Your task to perform on an android device: Open the phone app and click the voicemail tab. Image 0: 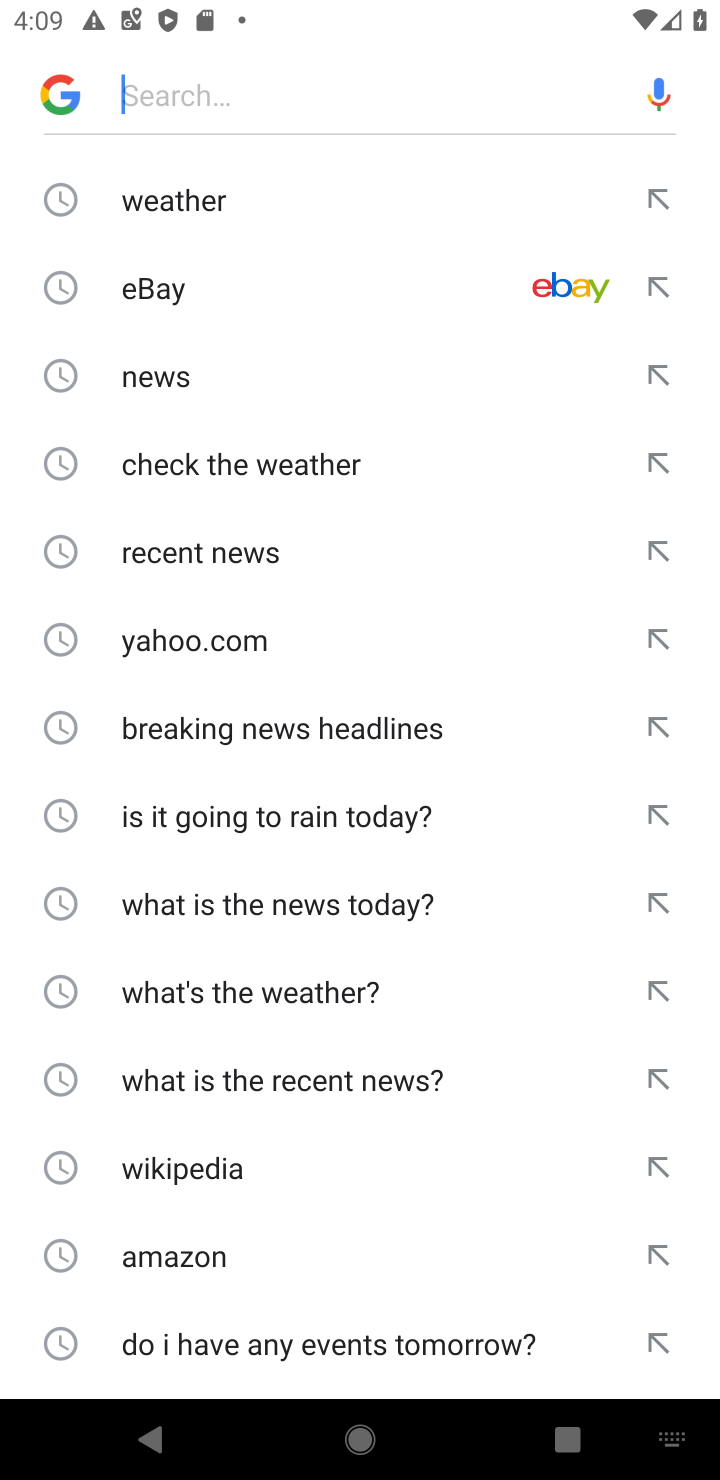
Step 0: press home button
Your task to perform on an android device: Open the phone app and click the voicemail tab. Image 1: 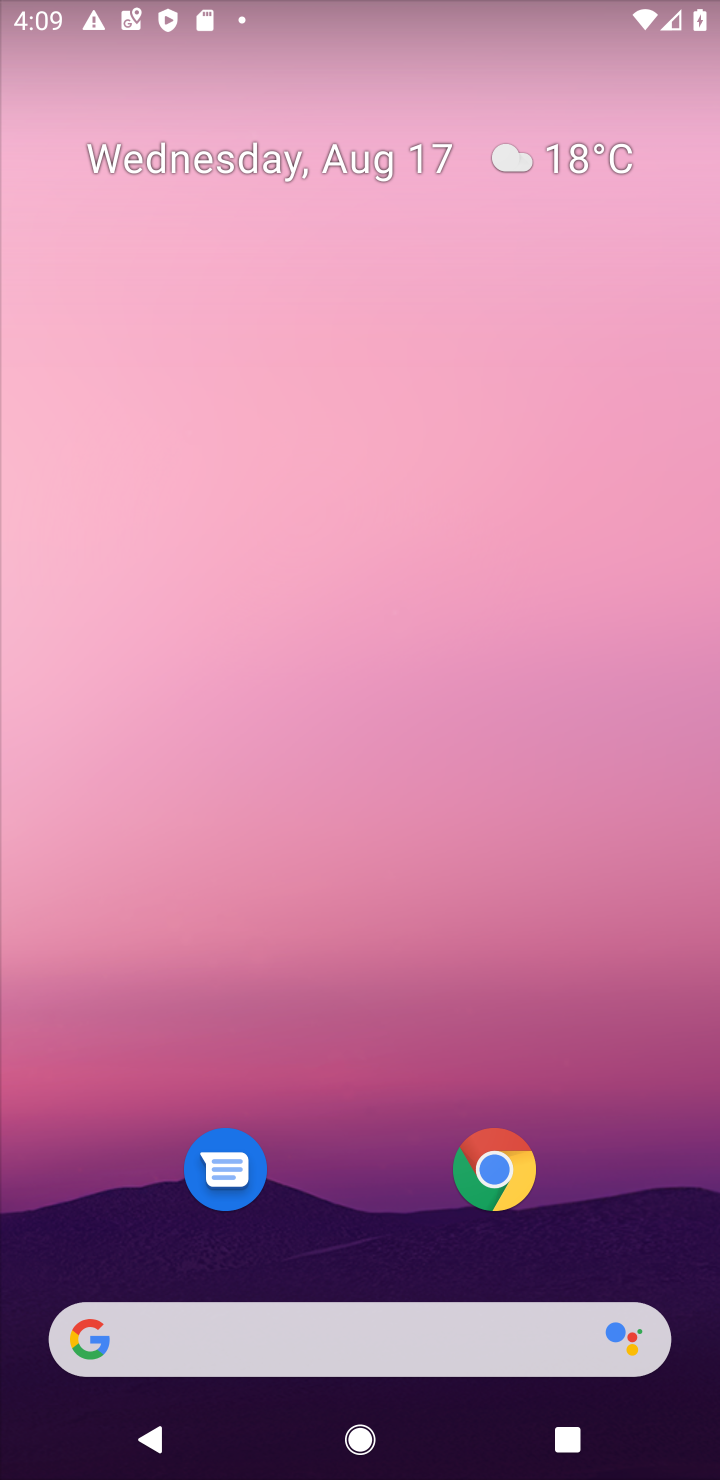
Step 1: drag from (375, 1153) to (405, 172)
Your task to perform on an android device: Open the phone app and click the voicemail tab. Image 2: 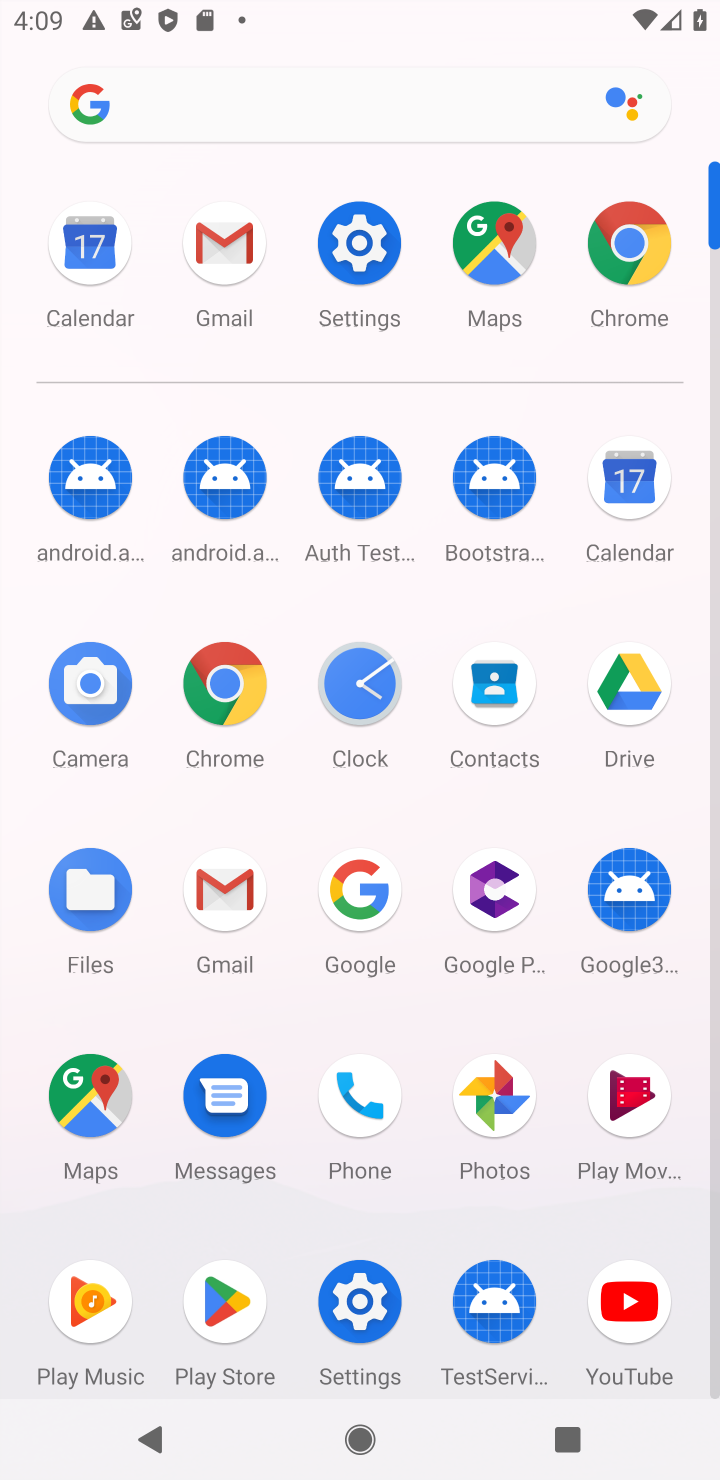
Step 2: click (360, 1092)
Your task to perform on an android device: Open the phone app and click the voicemail tab. Image 3: 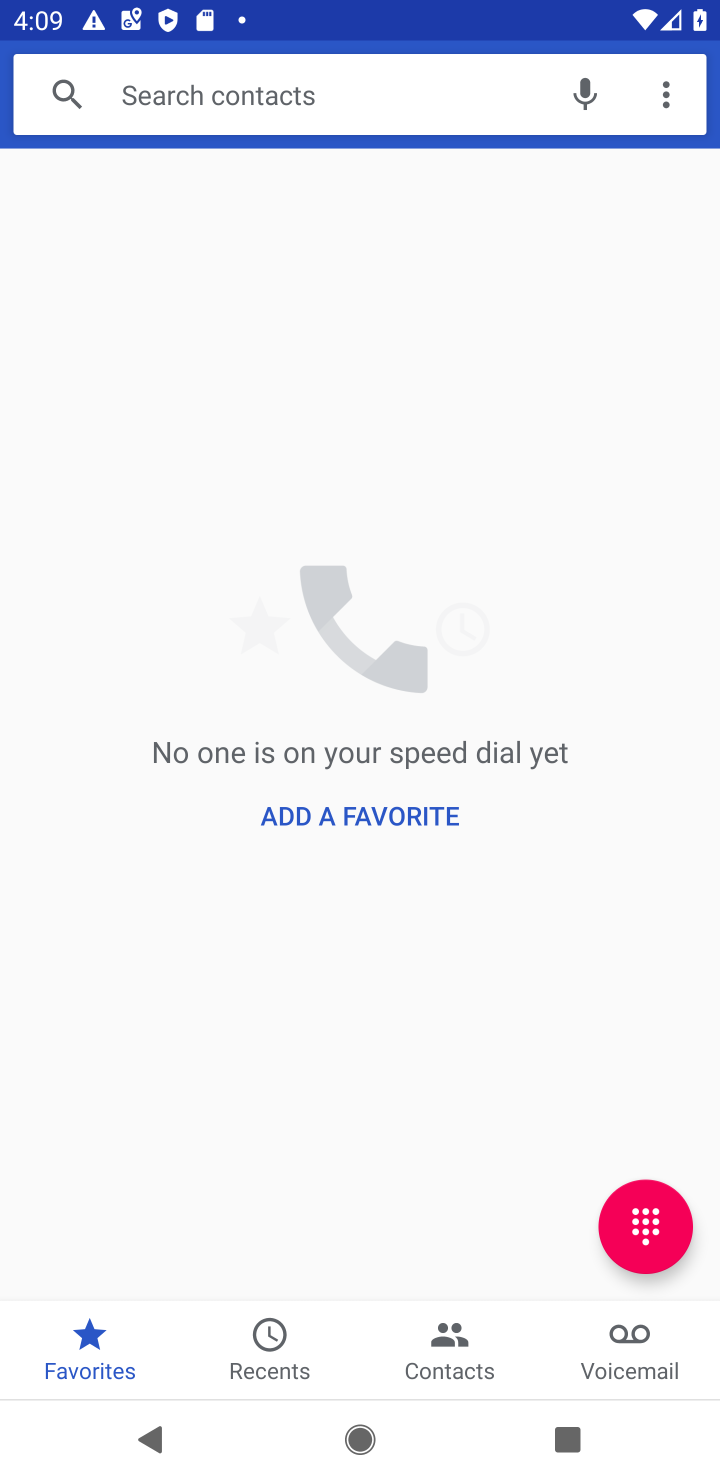
Step 3: click (628, 1368)
Your task to perform on an android device: Open the phone app and click the voicemail tab. Image 4: 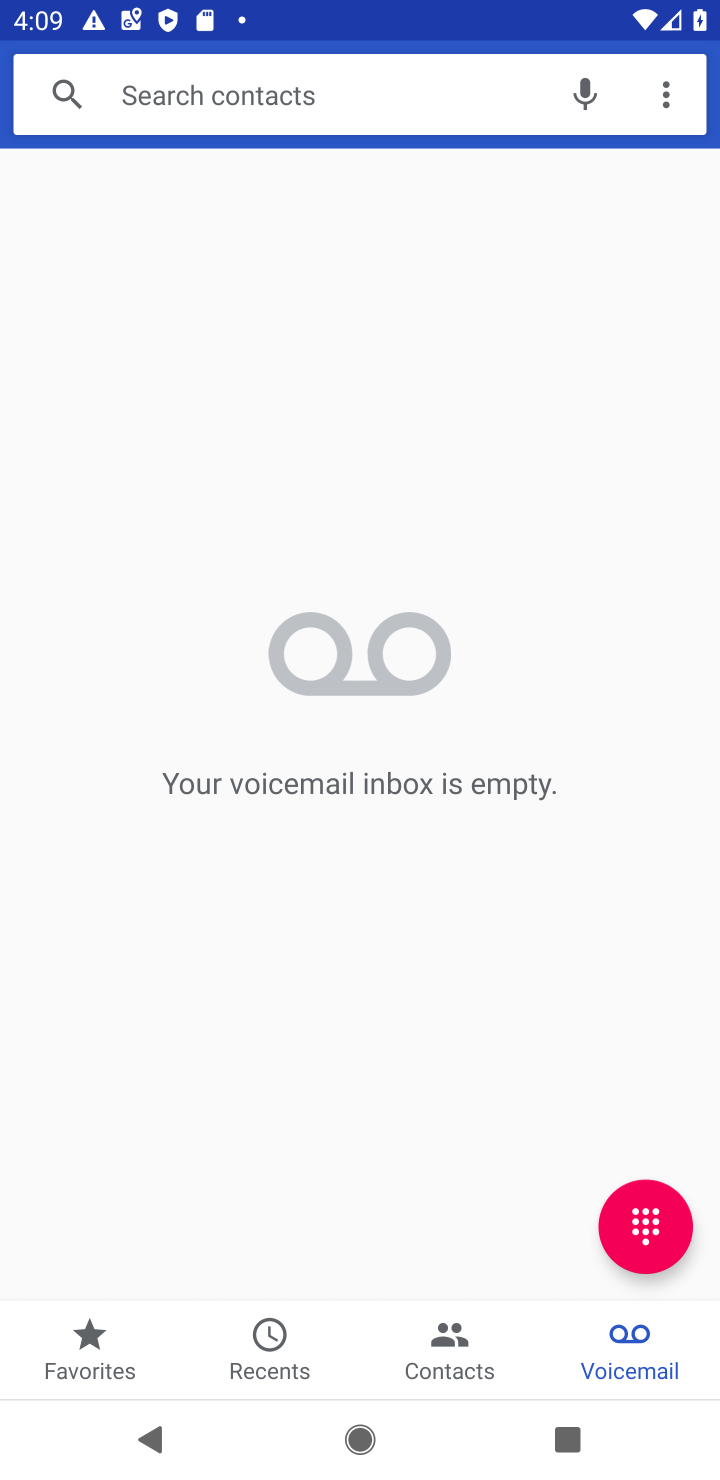
Step 4: task complete